Your task to perform on an android device: change the clock display to analog Image 0: 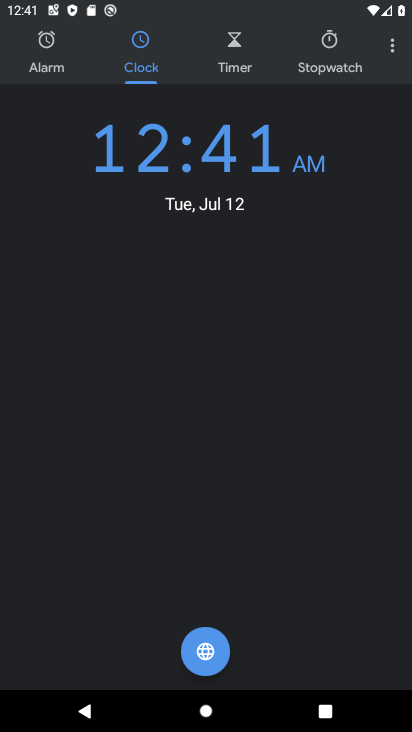
Step 0: press home button
Your task to perform on an android device: change the clock display to analog Image 1: 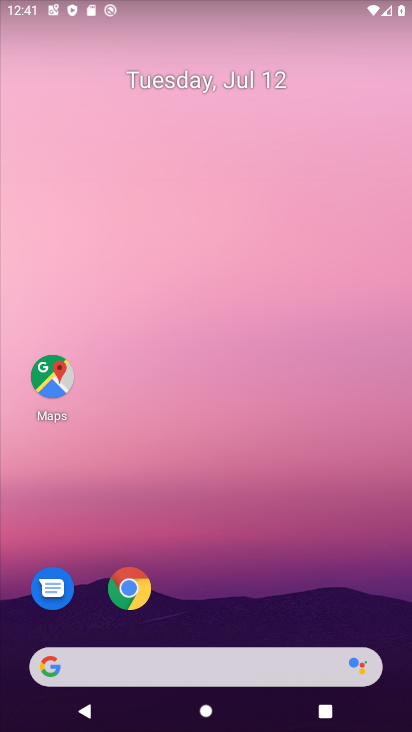
Step 1: drag from (191, 653) to (231, 280)
Your task to perform on an android device: change the clock display to analog Image 2: 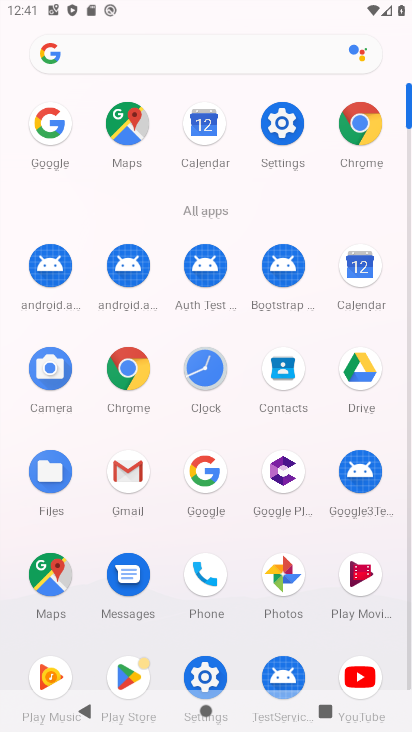
Step 2: click (195, 370)
Your task to perform on an android device: change the clock display to analog Image 3: 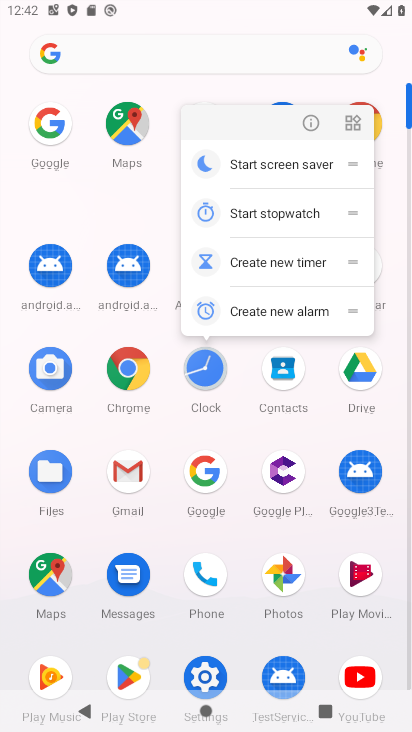
Step 3: click (208, 363)
Your task to perform on an android device: change the clock display to analog Image 4: 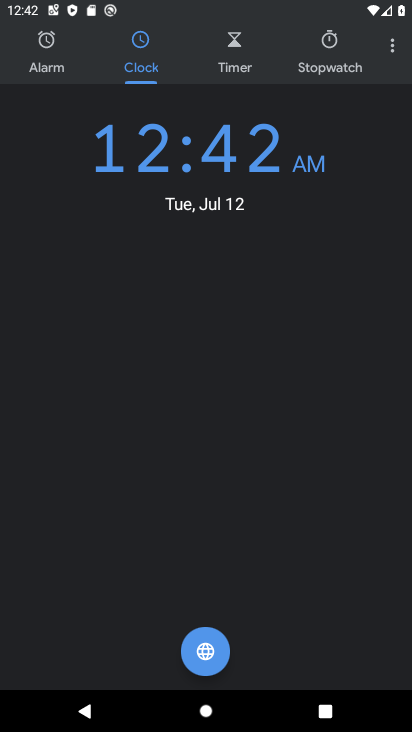
Step 4: click (390, 37)
Your task to perform on an android device: change the clock display to analog Image 5: 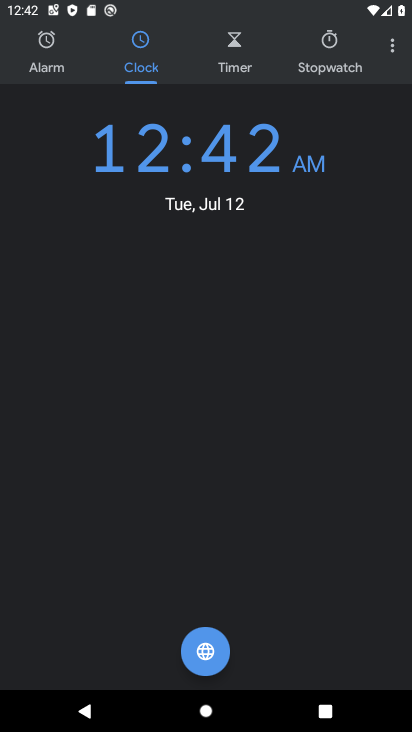
Step 5: click (395, 45)
Your task to perform on an android device: change the clock display to analog Image 6: 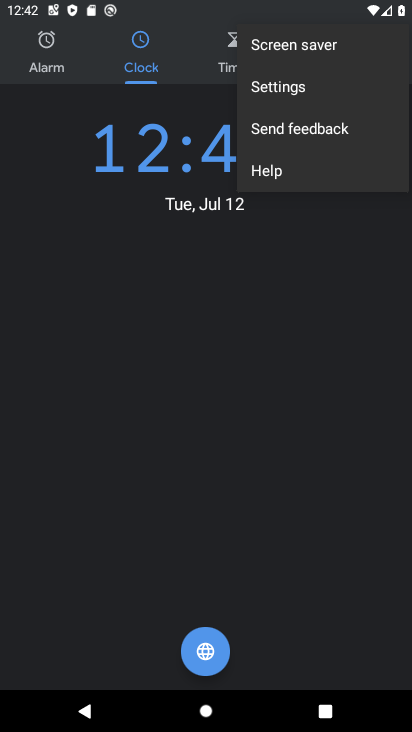
Step 6: click (269, 84)
Your task to perform on an android device: change the clock display to analog Image 7: 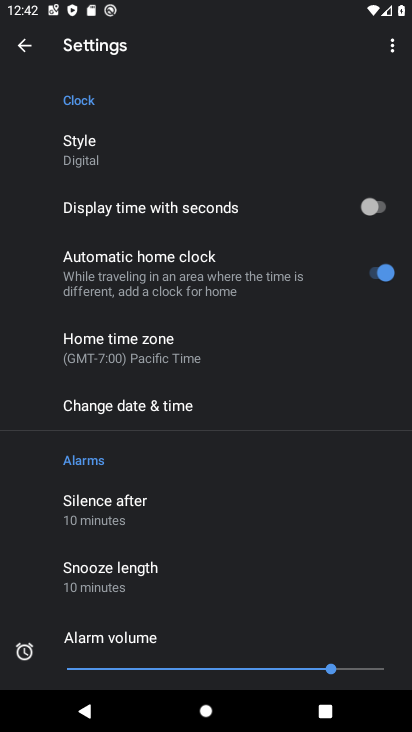
Step 7: click (98, 149)
Your task to perform on an android device: change the clock display to analog Image 8: 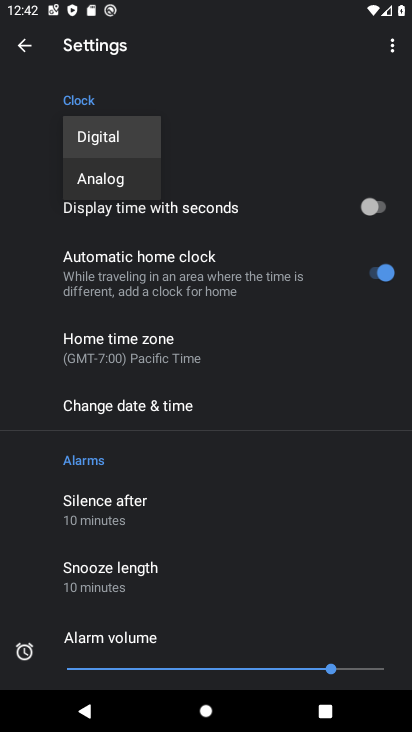
Step 8: click (97, 183)
Your task to perform on an android device: change the clock display to analog Image 9: 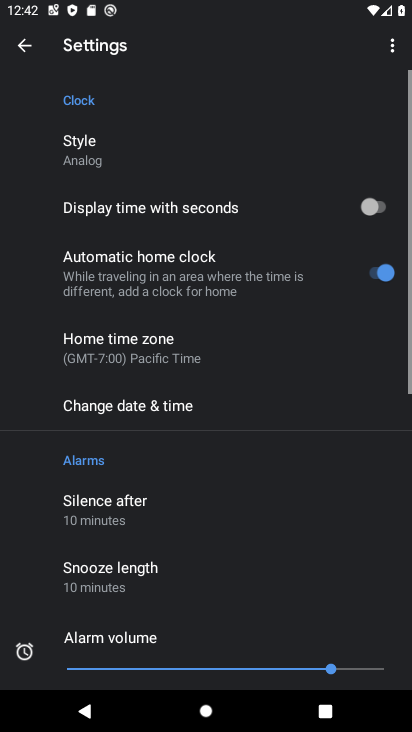
Step 9: task complete